Your task to perform on an android device: Search for pizza restaurants on Maps Image 0: 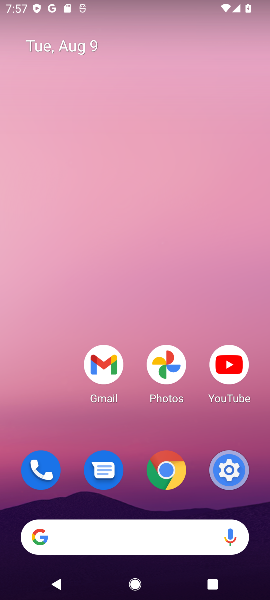
Step 0: click (202, 124)
Your task to perform on an android device: Search for pizza restaurants on Maps Image 1: 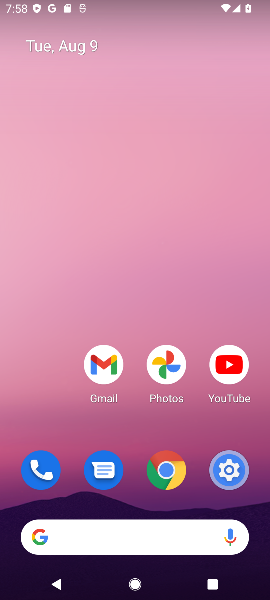
Step 1: drag from (172, 574) to (114, 97)
Your task to perform on an android device: Search for pizza restaurants on Maps Image 2: 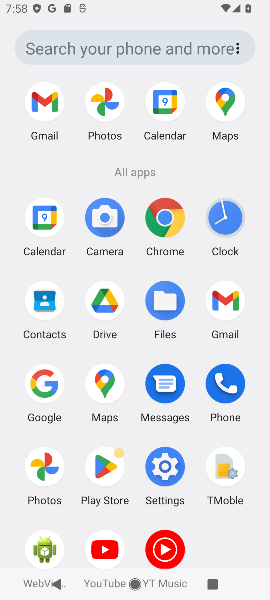
Step 2: click (102, 378)
Your task to perform on an android device: Search for pizza restaurants on Maps Image 3: 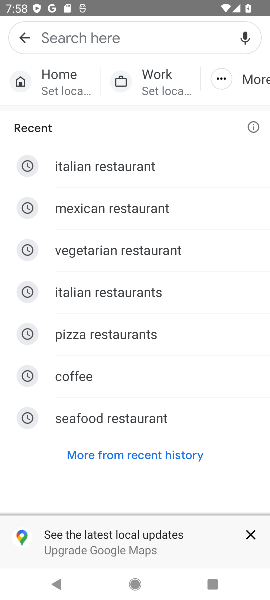
Step 3: click (154, 327)
Your task to perform on an android device: Search for pizza restaurants on Maps Image 4: 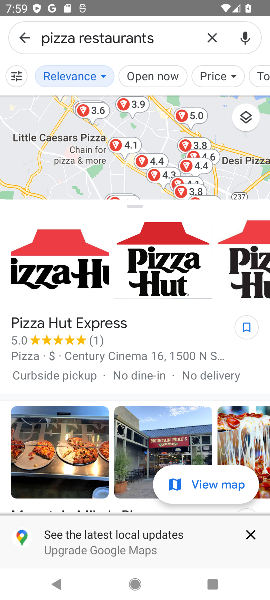
Step 4: task complete